Your task to perform on an android device: Go to ESPN.com Image 0: 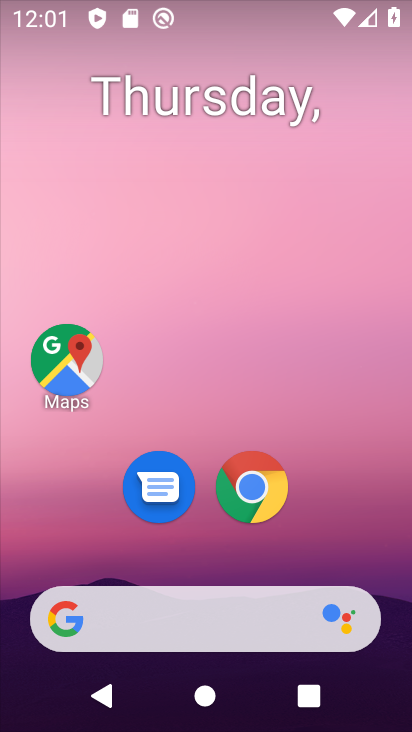
Step 0: click (266, 482)
Your task to perform on an android device: Go to ESPN.com Image 1: 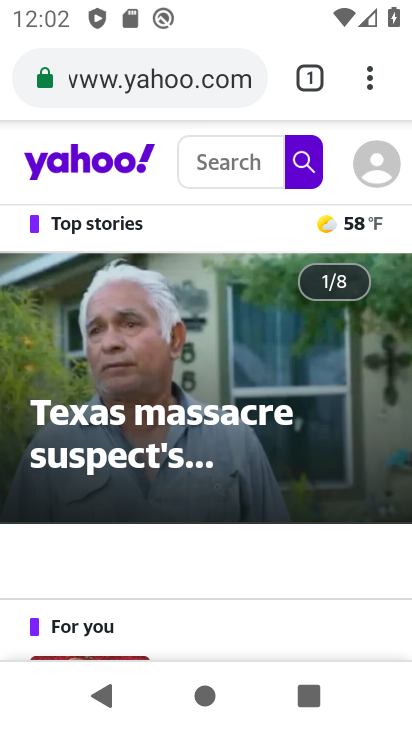
Step 1: click (135, 100)
Your task to perform on an android device: Go to ESPN.com Image 2: 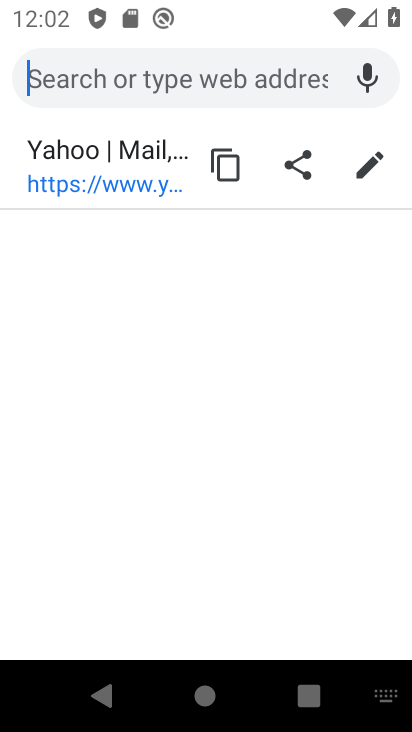
Step 2: type " ESPN.com"
Your task to perform on an android device: Go to ESPN.com Image 3: 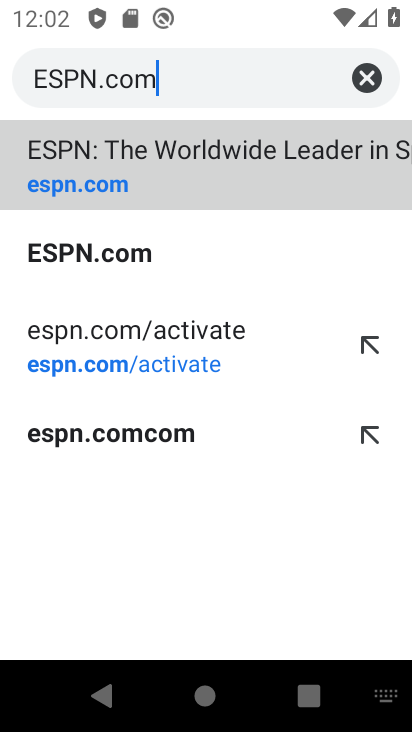
Step 3: click (174, 149)
Your task to perform on an android device: Go to ESPN.com Image 4: 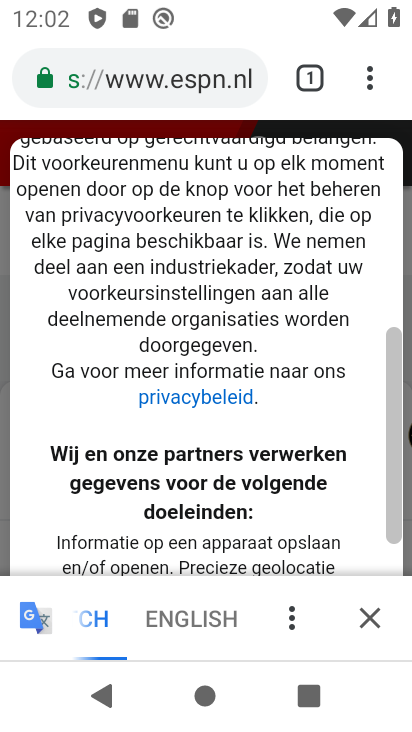
Step 4: task complete